Your task to perform on an android device: turn on notifications settings in the gmail app Image 0: 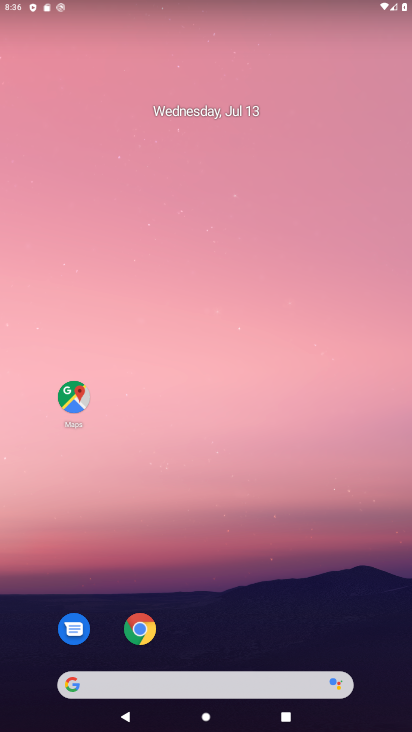
Step 0: drag from (317, 595) to (263, 63)
Your task to perform on an android device: turn on notifications settings in the gmail app Image 1: 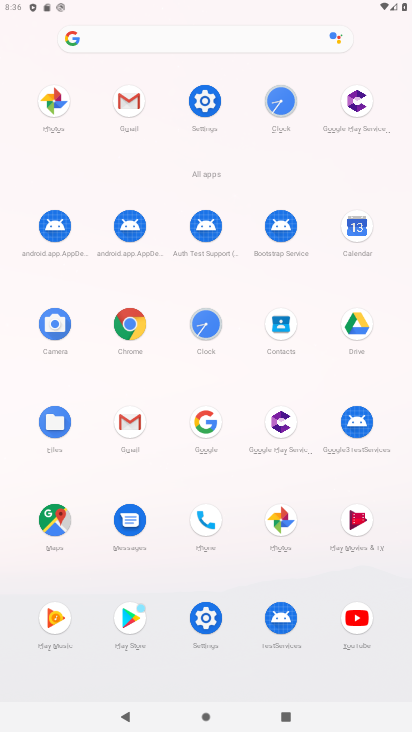
Step 1: click (129, 407)
Your task to perform on an android device: turn on notifications settings in the gmail app Image 2: 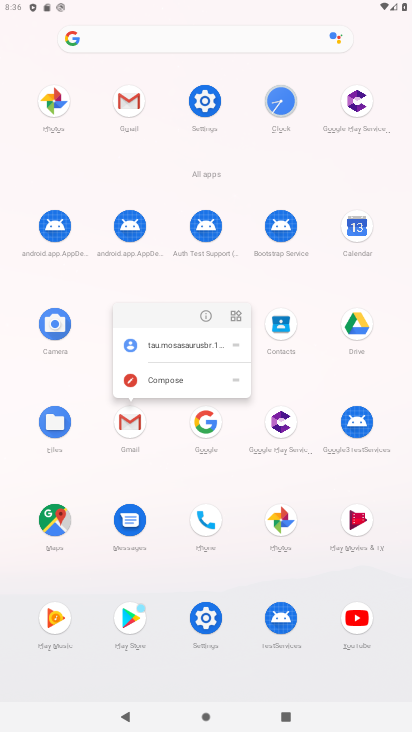
Step 2: click (208, 313)
Your task to perform on an android device: turn on notifications settings in the gmail app Image 3: 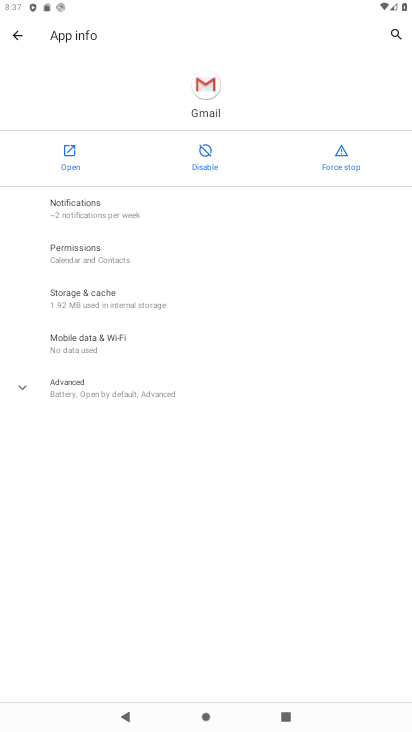
Step 3: click (128, 203)
Your task to perform on an android device: turn on notifications settings in the gmail app Image 4: 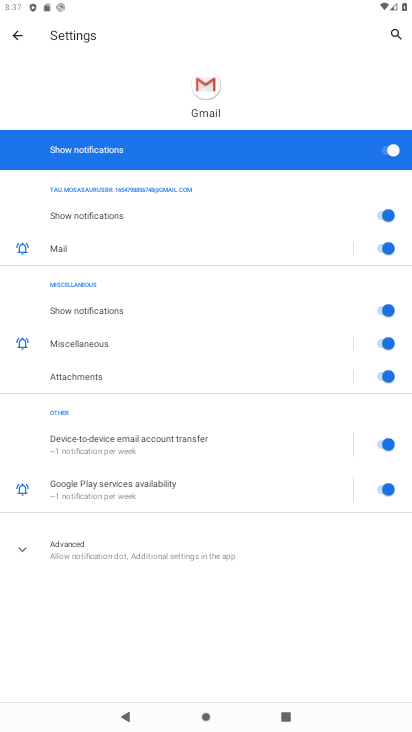
Step 4: task complete